Your task to perform on an android device: Turn on the flashlight Image 0: 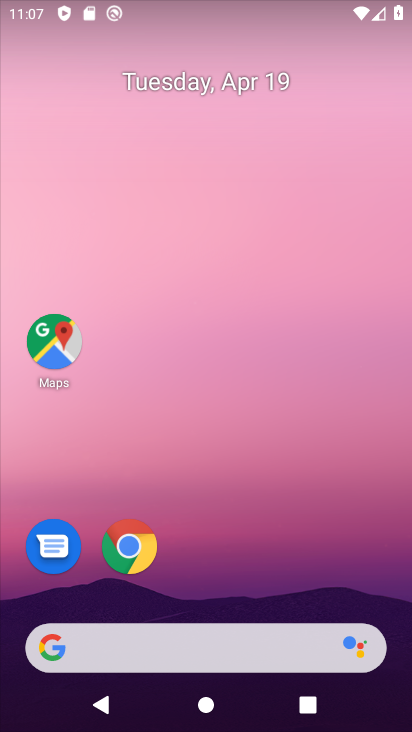
Step 0: drag from (201, 0) to (256, 426)
Your task to perform on an android device: Turn on the flashlight Image 1: 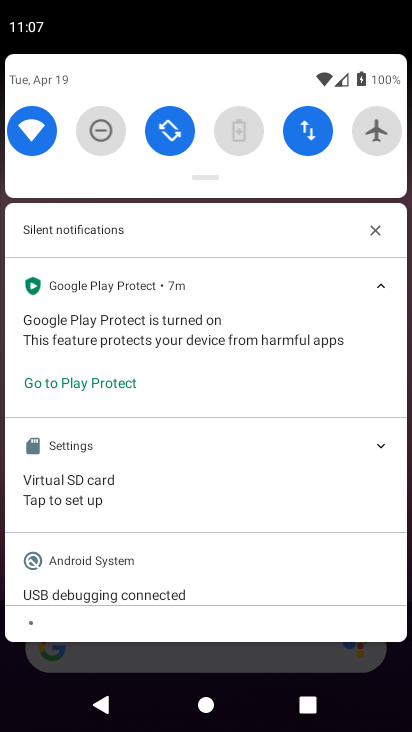
Step 1: task complete